Your task to perform on an android device: Open sound settings Image 0: 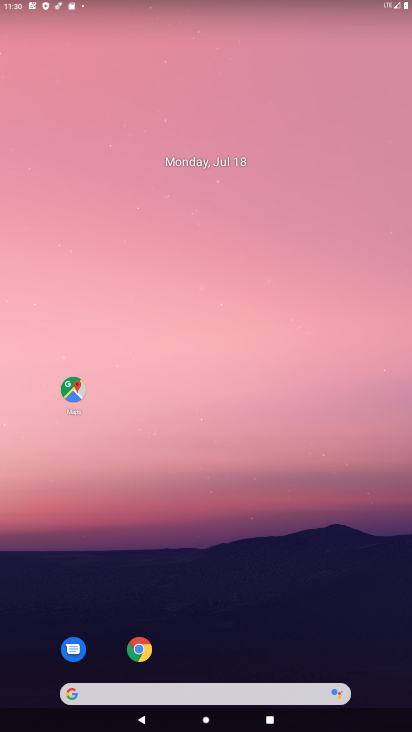
Step 0: drag from (183, 602) to (323, 1)
Your task to perform on an android device: Open sound settings Image 1: 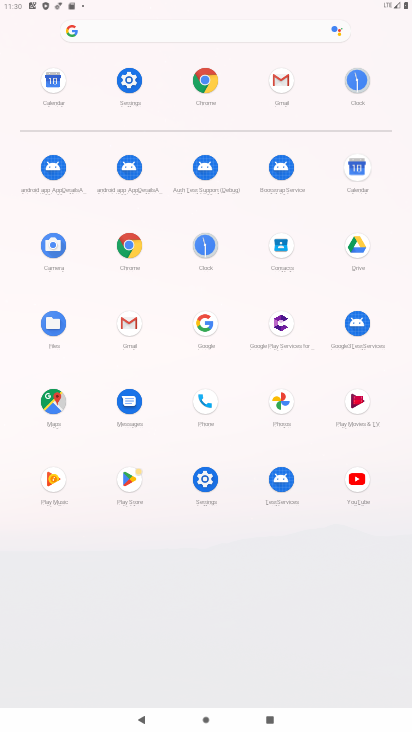
Step 1: click (122, 76)
Your task to perform on an android device: Open sound settings Image 2: 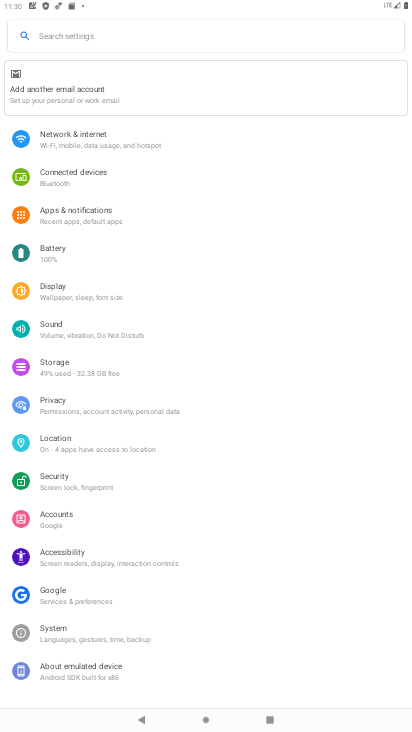
Step 2: click (131, 329)
Your task to perform on an android device: Open sound settings Image 3: 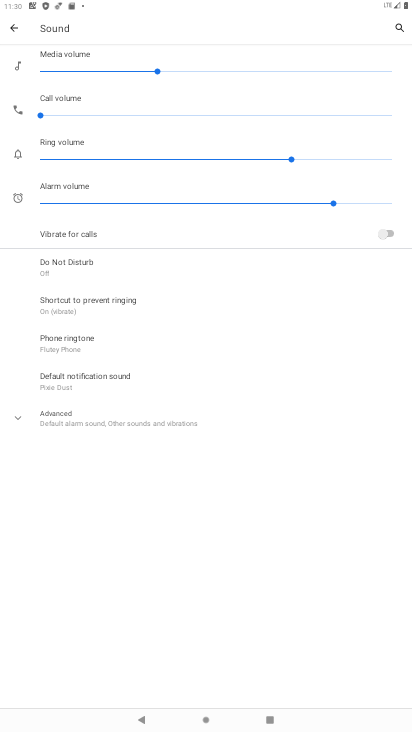
Step 3: task complete